Your task to perform on an android device: turn off airplane mode Image 0: 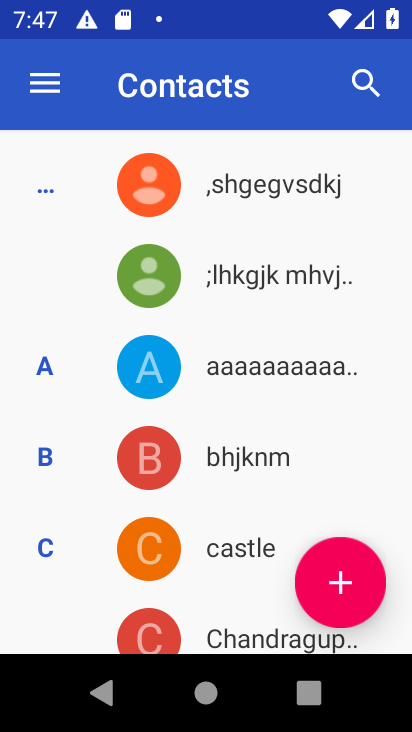
Step 0: press home button
Your task to perform on an android device: turn off airplane mode Image 1: 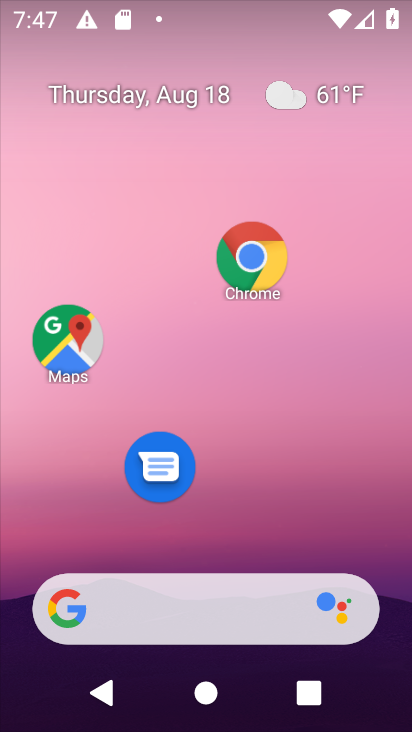
Step 1: drag from (275, 496) to (297, 169)
Your task to perform on an android device: turn off airplane mode Image 2: 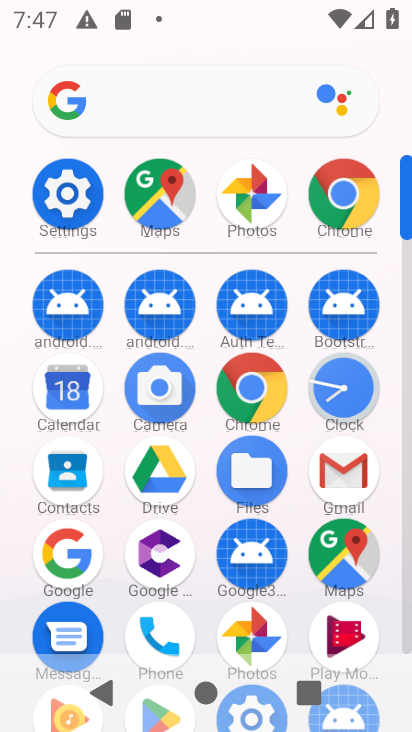
Step 2: click (73, 187)
Your task to perform on an android device: turn off airplane mode Image 3: 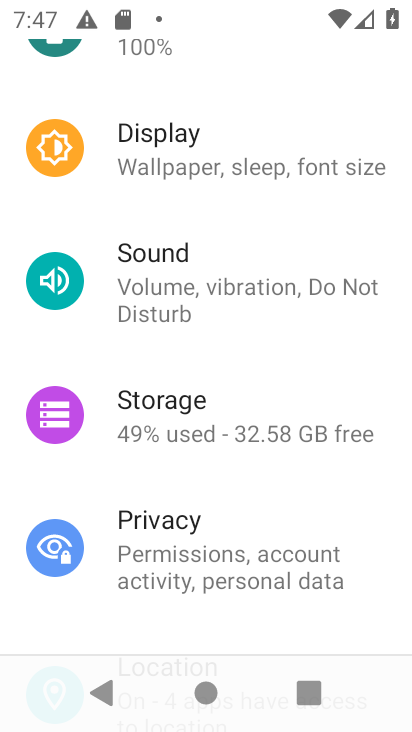
Step 3: task complete